Your task to perform on an android device: Find coffee shops on Maps Image 0: 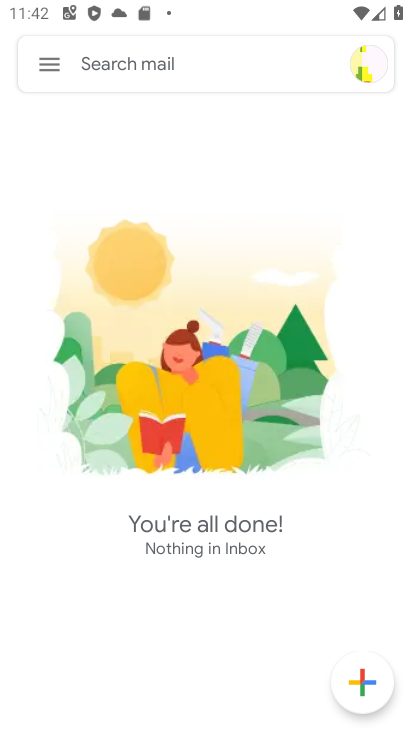
Step 0: press home button
Your task to perform on an android device: Find coffee shops on Maps Image 1: 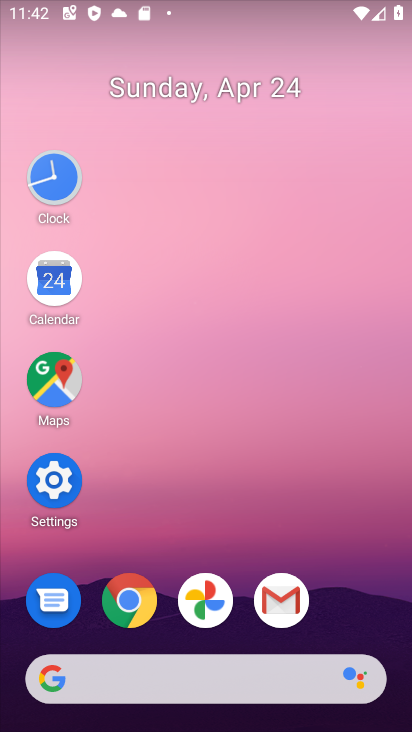
Step 1: click (46, 384)
Your task to perform on an android device: Find coffee shops on Maps Image 2: 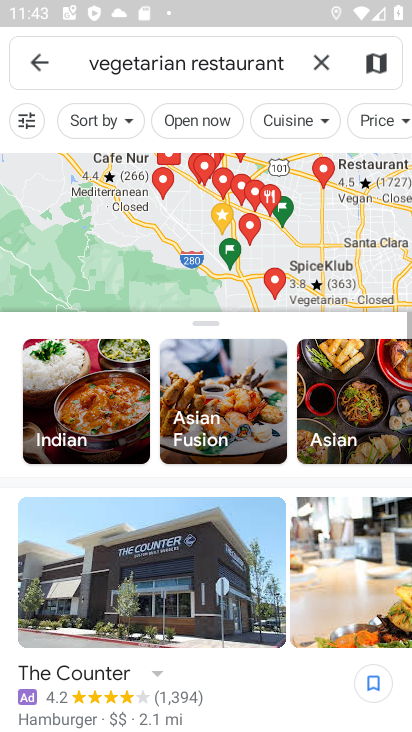
Step 2: click (318, 60)
Your task to perform on an android device: Find coffee shops on Maps Image 3: 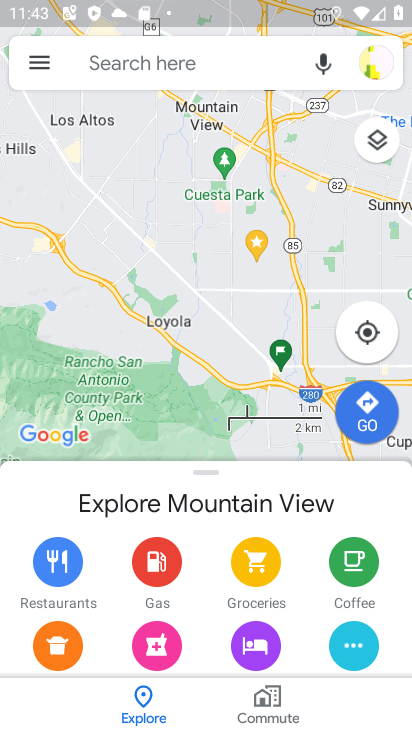
Step 3: click (178, 64)
Your task to perform on an android device: Find coffee shops on Maps Image 4: 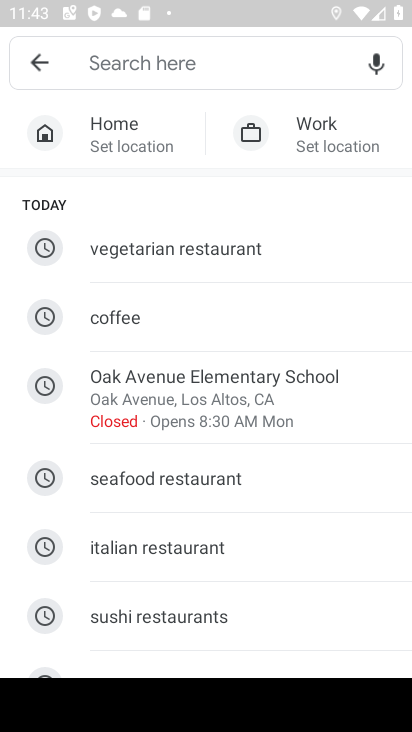
Step 4: click (117, 313)
Your task to perform on an android device: Find coffee shops on Maps Image 5: 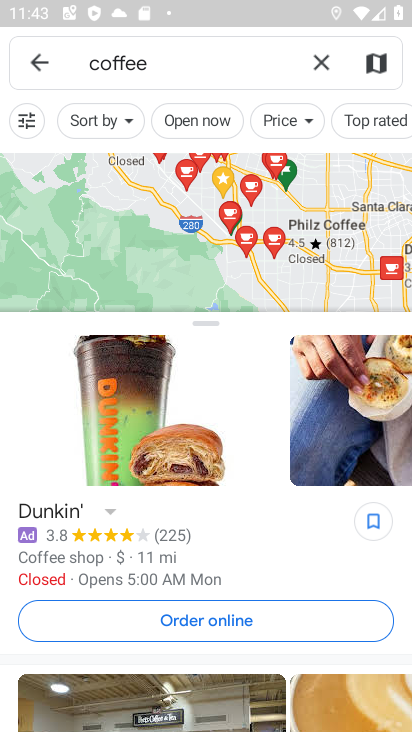
Step 5: task complete